Your task to perform on an android device: turn off sleep mode Image 0: 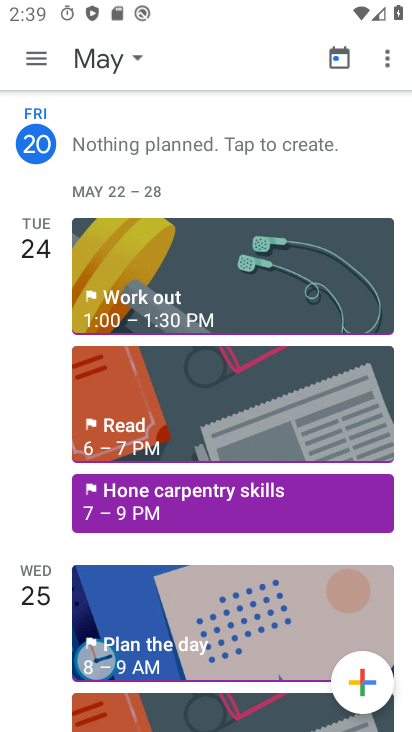
Step 0: press back button
Your task to perform on an android device: turn off sleep mode Image 1: 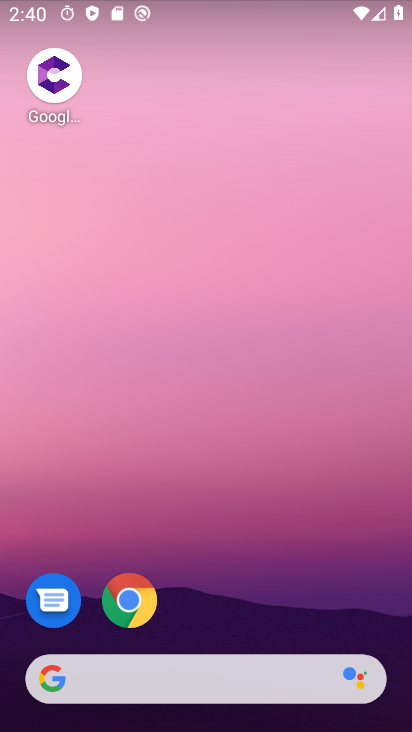
Step 1: drag from (309, 523) to (246, 79)
Your task to perform on an android device: turn off sleep mode Image 2: 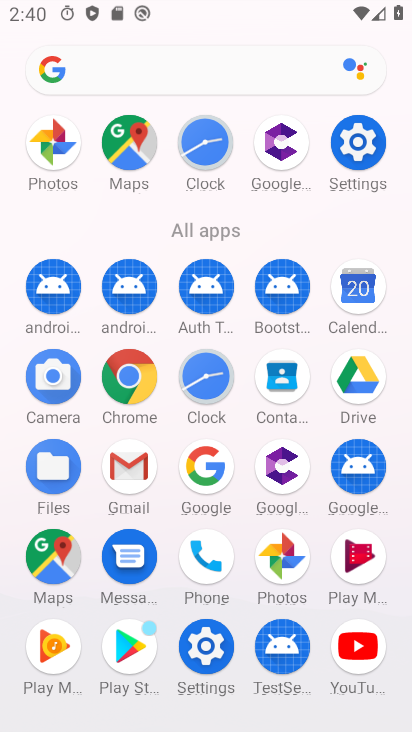
Step 2: drag from (23, 623) to (13, 314)
Your task to perform on an android device: turn off sleep mode Image 3: 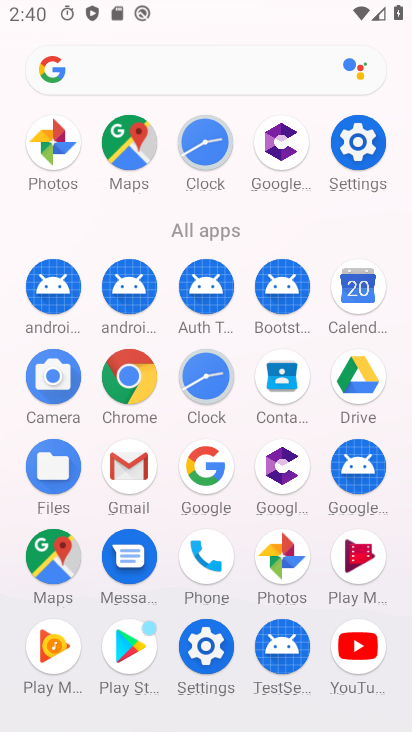
Step 3: click (202, 643)
Your task to perform on an android device: turn off sleep mode Image 4: 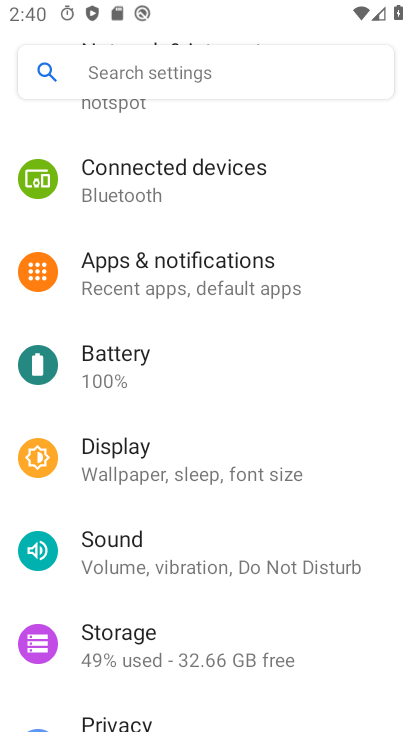
Step 4: drag from (309, 217) to (282, 579)
Your task to perform on an android device: turn off sleep mode Image 5: 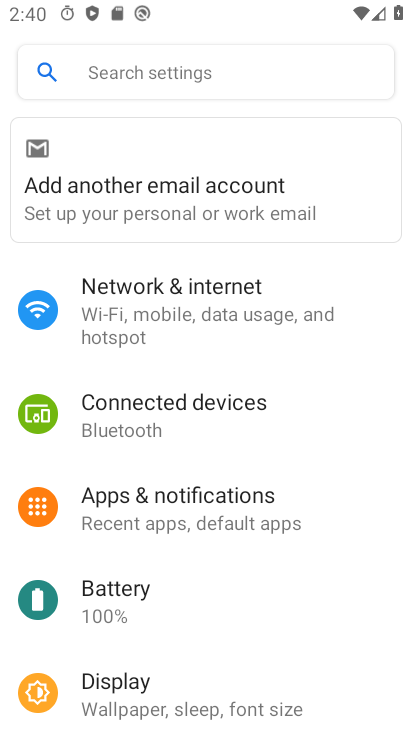
Step 5: drag from (260, 502) to (280, 195)
Your task to perform on an android device: turn off sleep mode Image 6: 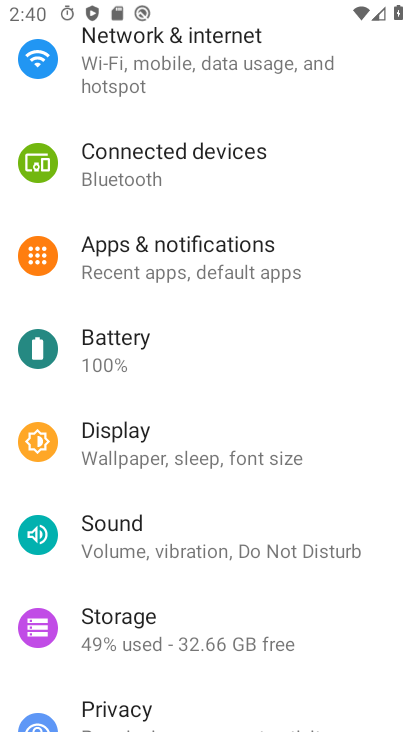
Step 6: drag from (275, 492) to (272, 158)
Your task to perform on an android device: turn off sleep mode Image 7: 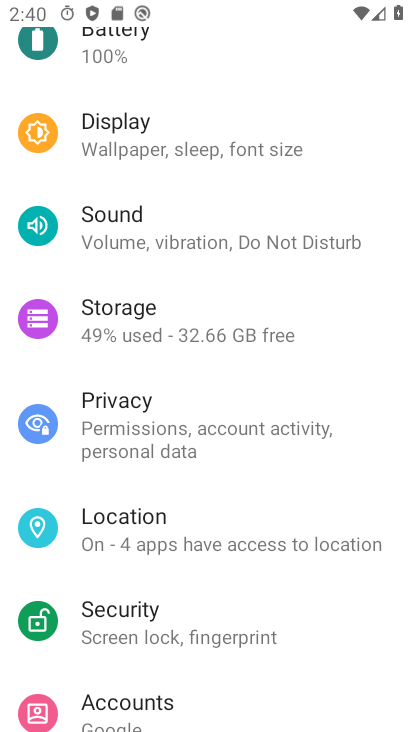
Step 7: click (168, 138)
Your task to perform on an android device: turn off sleep mode Image 8: 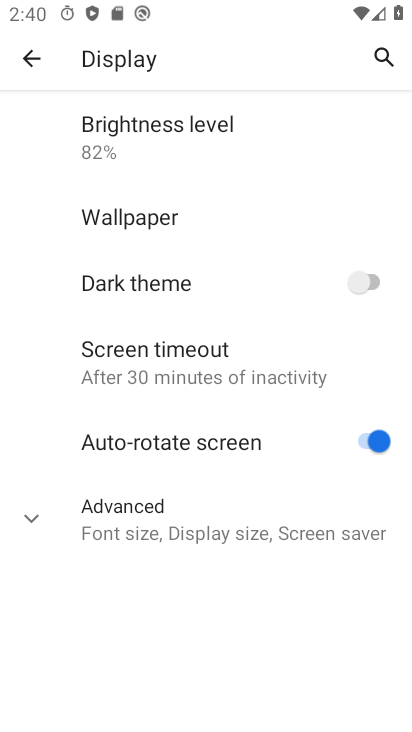
Step 8: click (50, 516)
Your task to perform on an android device: turn off sleep mode Image 9: 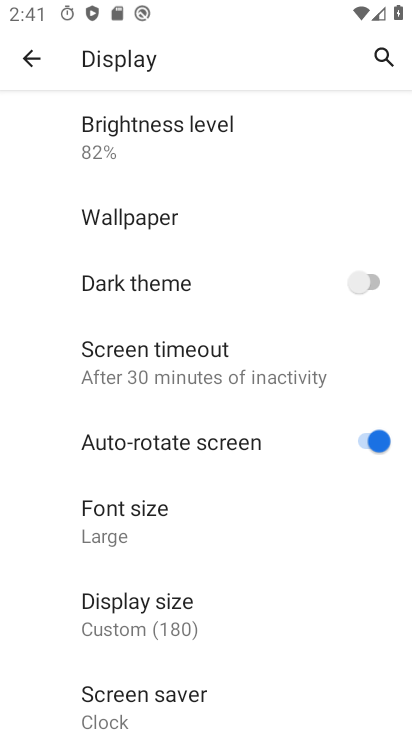
Step 9: task complete